Your task to perform on an android device: Open Chrome and go to settings Image 0: 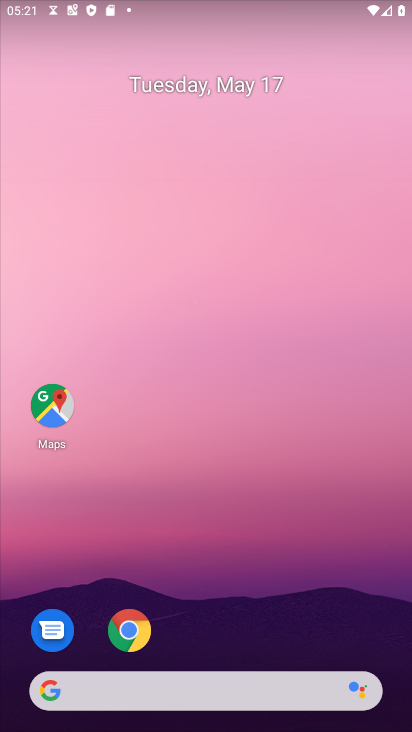
Step 0: click (122, 632)
Your task to perform on an android device: Open Chrome and go to settings Image 1: 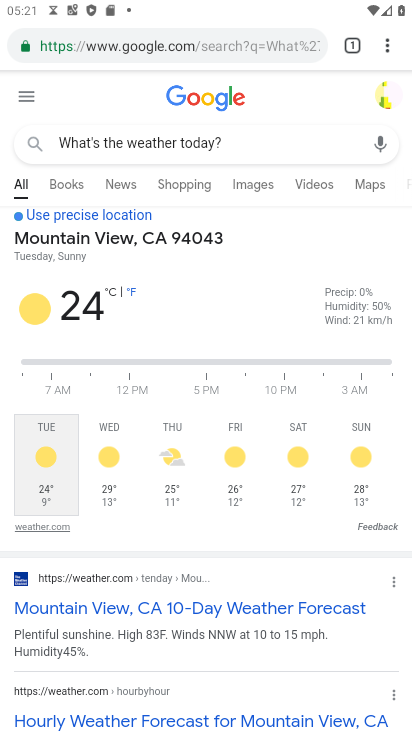
Step 1: task complete